Your task to perform on an android device: change the upload size in google photos Image 0: 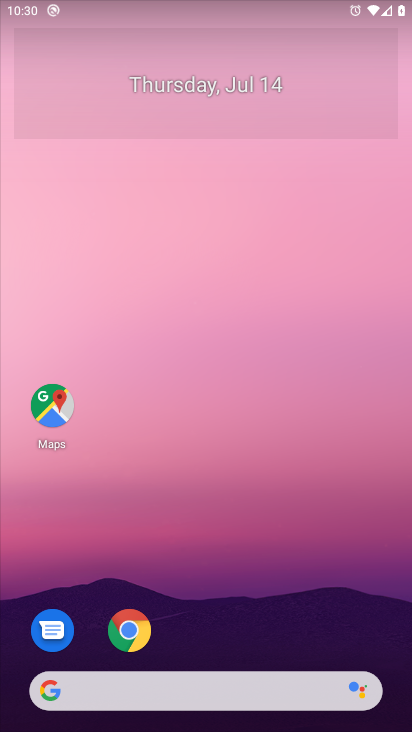
Step 0: drag from (121, 497) to (246, 241)
Your task to perform on an android device: change the upload size in google photos Image 1: 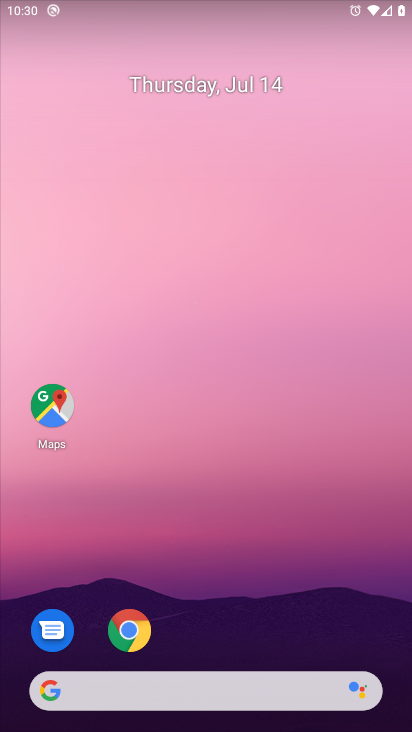
Step 1: drag from (23, 699) to (219, 134)
Your task to perform on an android device: change the upload size in google photos Image 2: 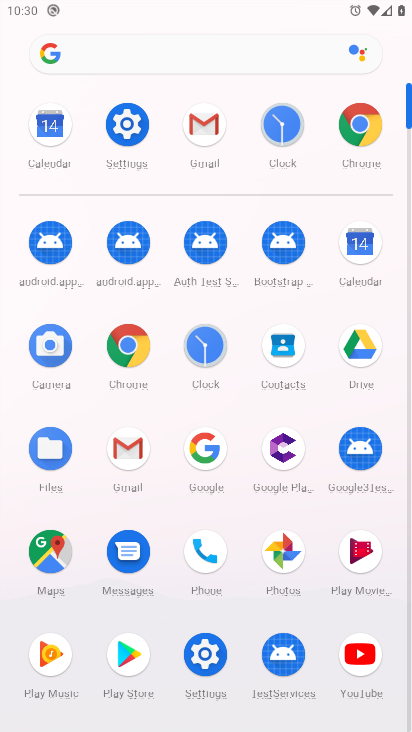
Step 2: click (263, 550)
Your task to perform on an android device: change the upload size in google photos Image 3: 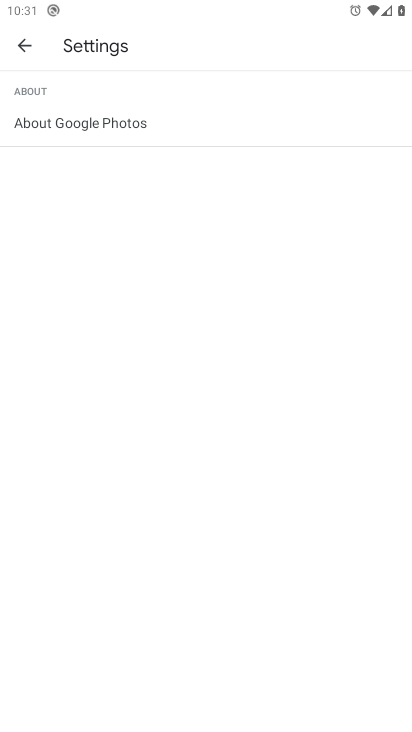
Step 3: click (21, 56)
Your task to perform on an android device: change the upload size in google photos Image 4: 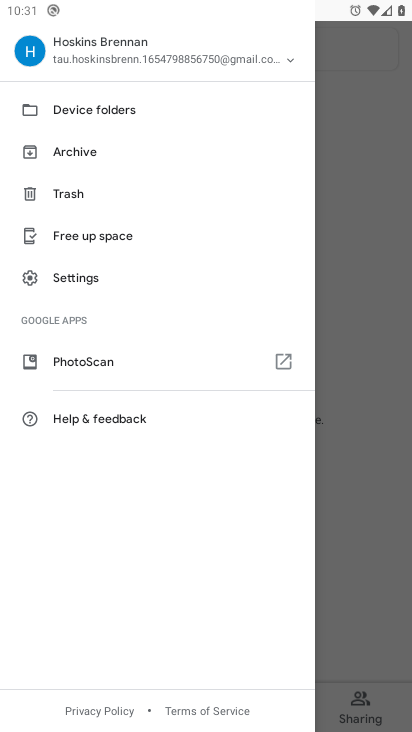
Step 4: click (91, 285)
Your task to perform on an android device: change the upload size in google photos Image 5: 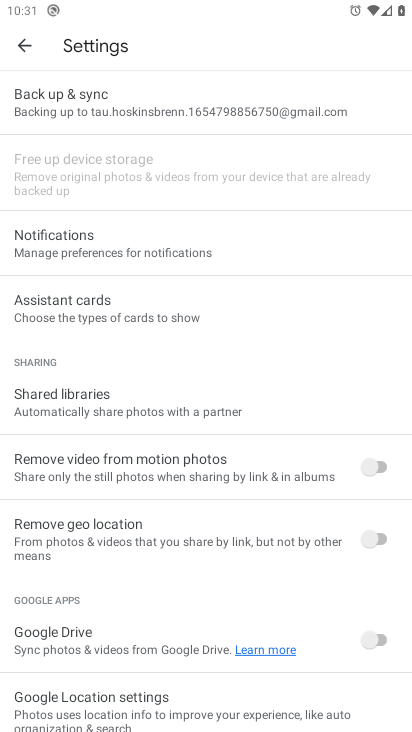
Step 5: click (151, 110)
Your task to perform on an android device: change the upload size in google photos Image 6: 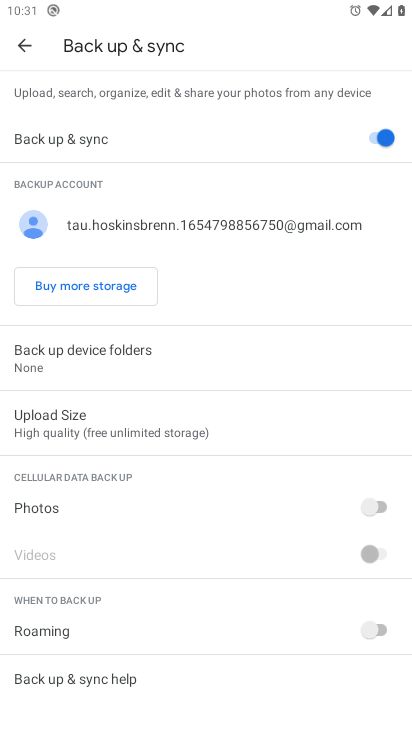
Step 6: click (175, 416)
Your task to perform on an android device: change the upload size in google photos Image 7: 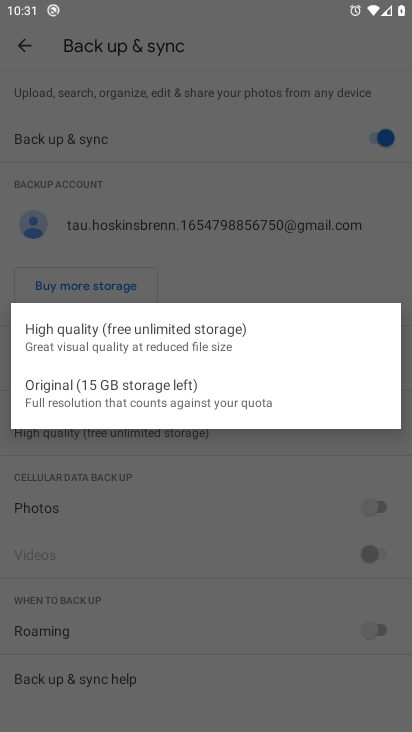
Step 7: click (169, 374)
Your task to perform on an android device: change the upload size in google photos Image 8: 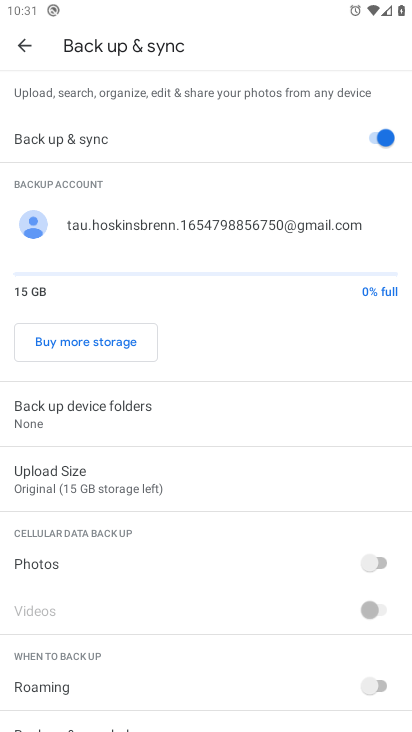
Step 8: task complete